Your task to perform on an android device: install app "Venmo" Image 0: 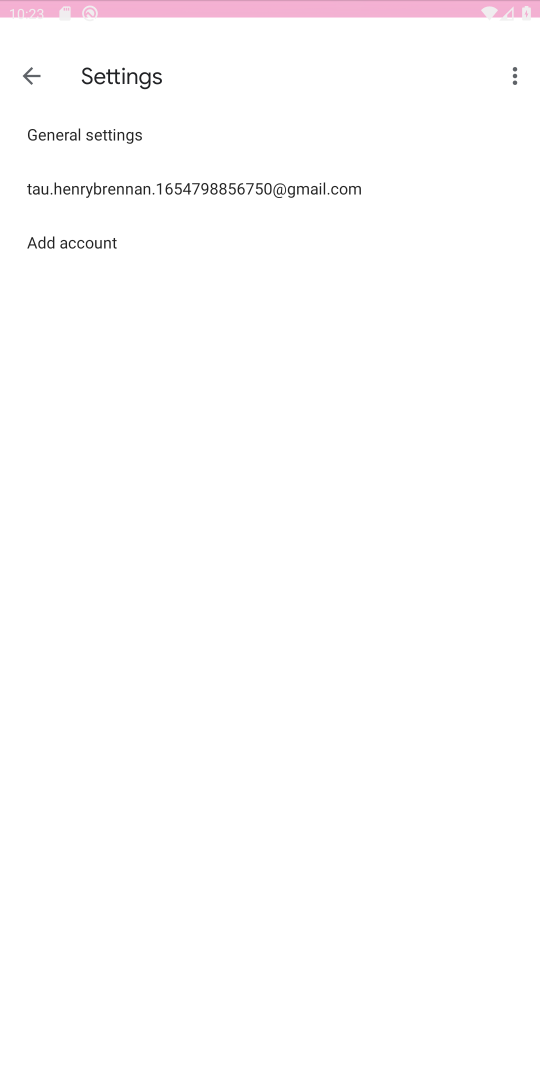
Step 0: click (335, 4)
Your task to perform on an android device: install app "Venmo" Image 1: 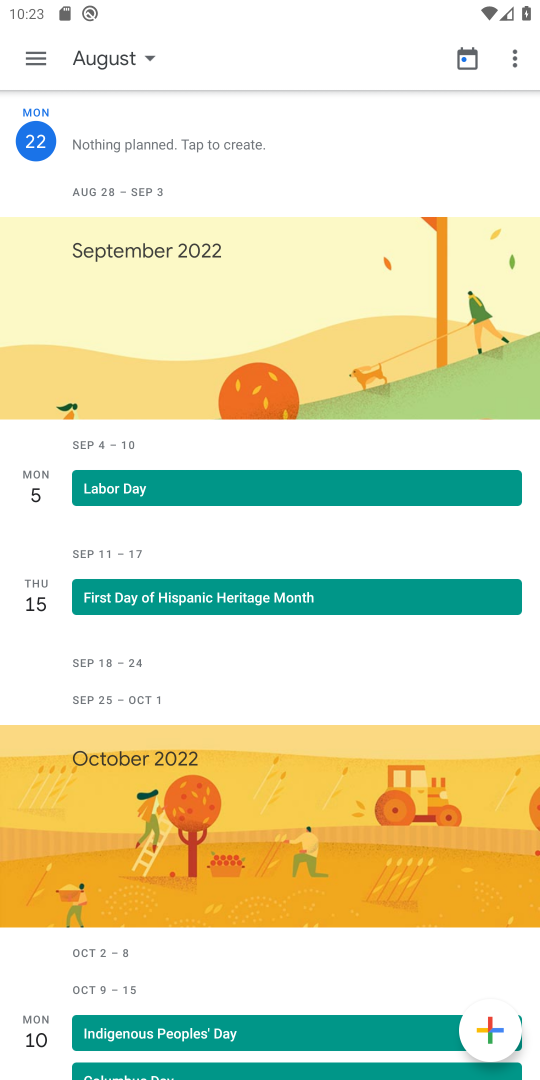
Step 1: press home button
Your task to perform on an android device: install app "Venmo" Image 2: 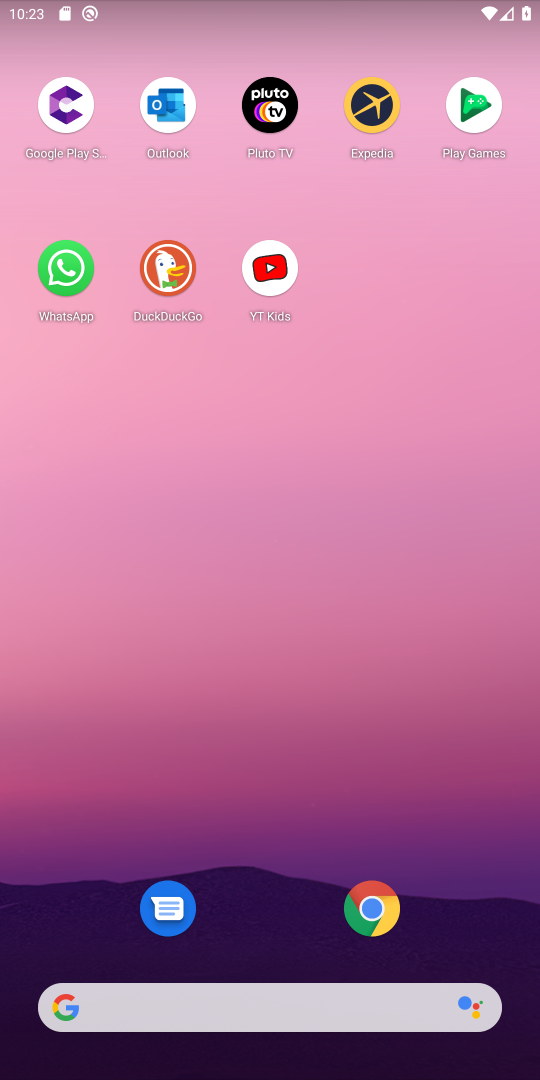
Step 2: drag from (295, 941) to (311, 213)
Your task to perform on an android device: install app "Venmo" Image 3: 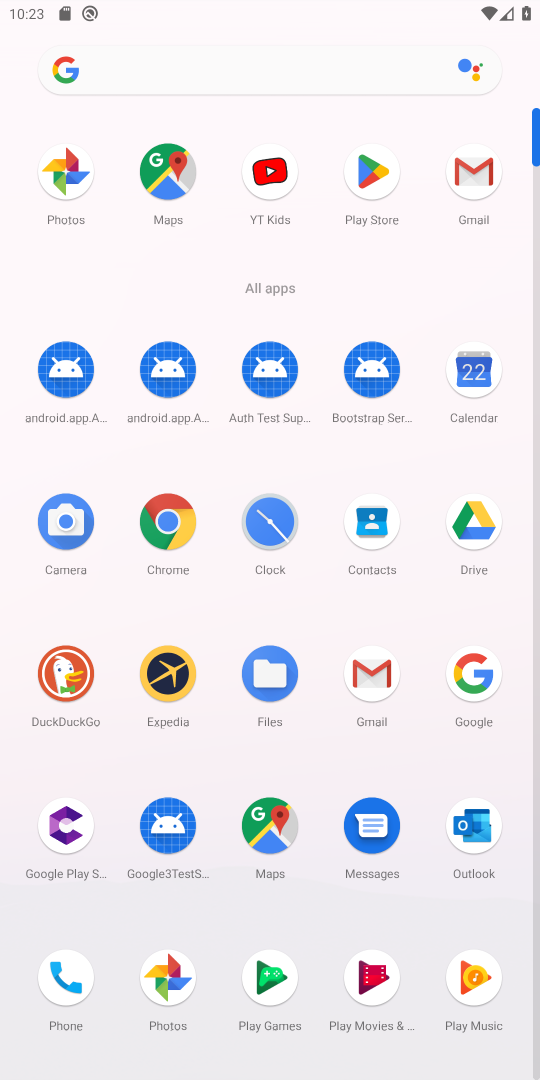
Step 3: click (346, 199)
Your task to perform on an android device: install app "Venmo" Image 4: 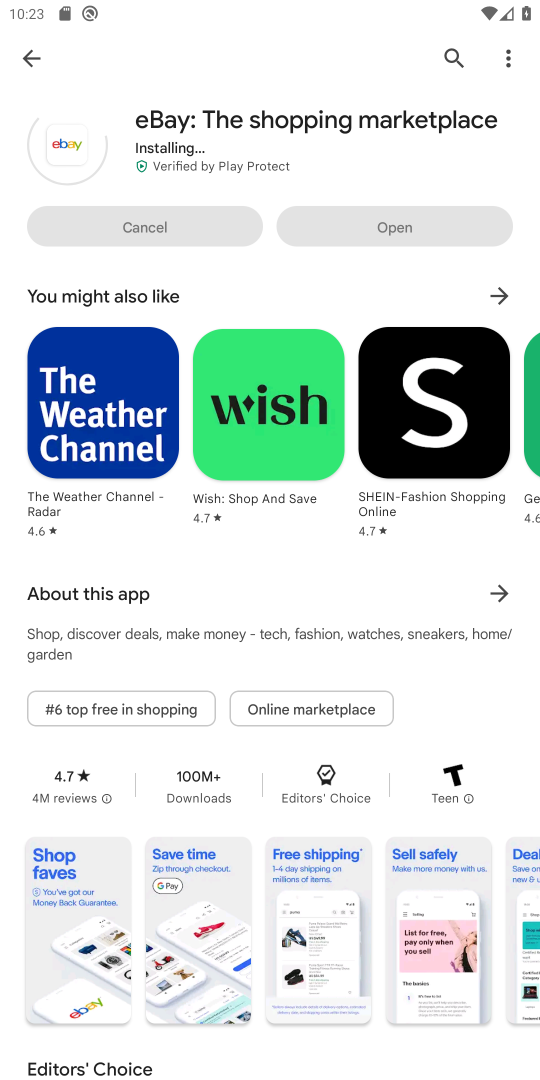
Step 4: click (441, 72)
Your task to perform on an android device: install app "Venmo" Image 5: 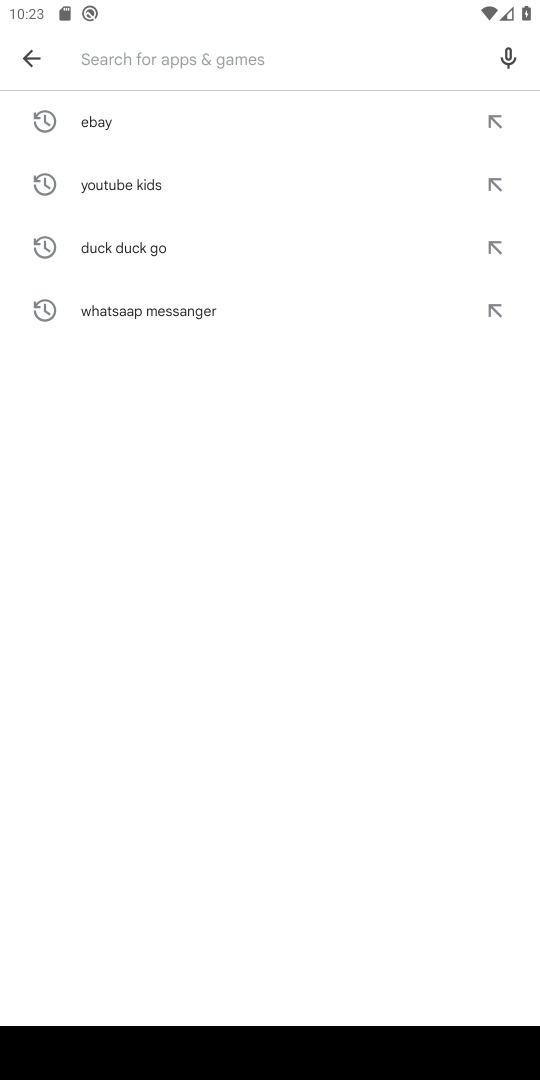
Step 5: type "venmo"
Your task to perform on an android device: install app "Venmo" Image 6: 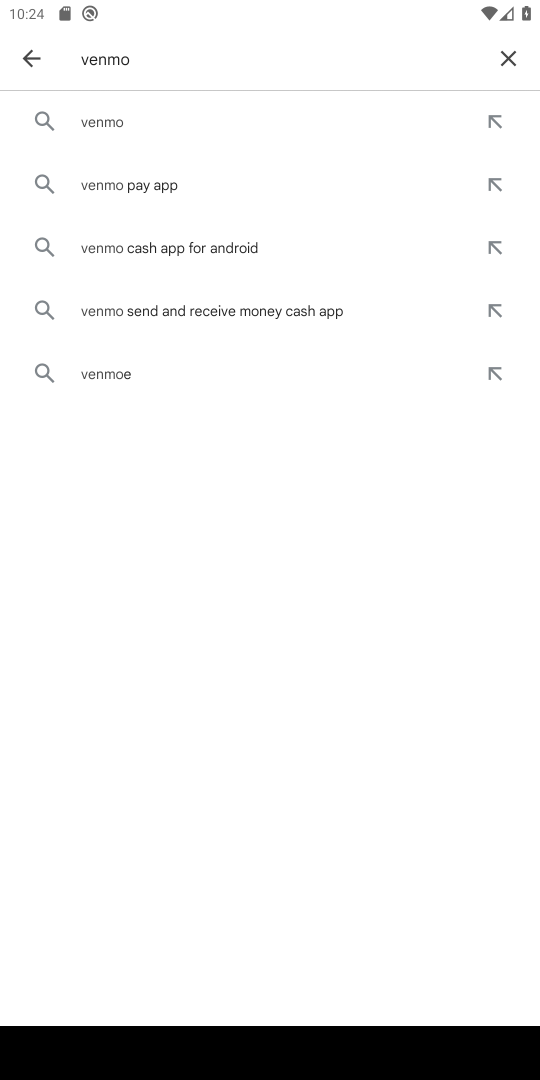
Step 6: click (177, 106)
Your task to perform on an android device: install app "Venmo" Image 7: 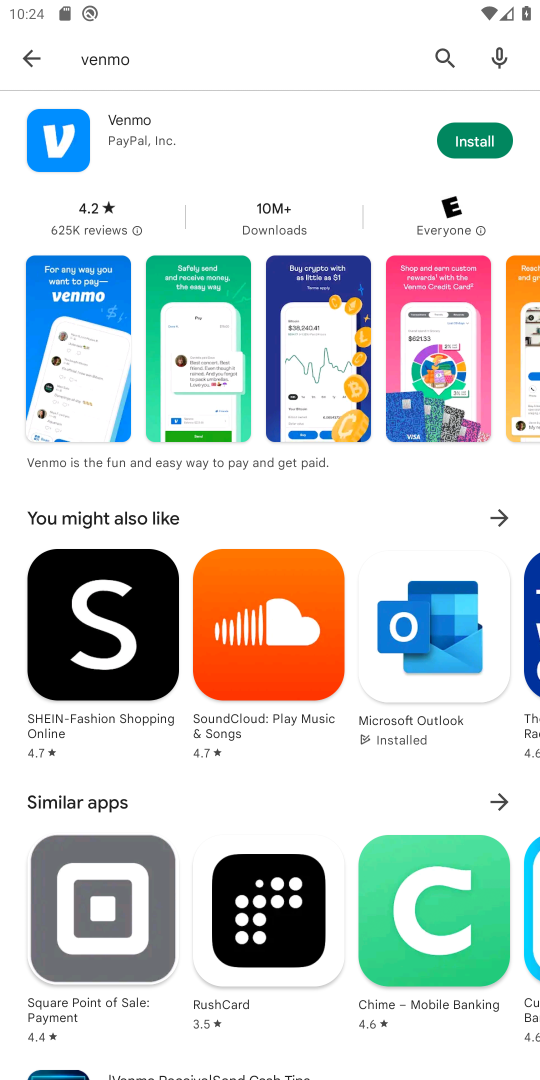
Step 7: click (508, 141)
Your task to perform on an android device: install app "Venmo" Image 8: 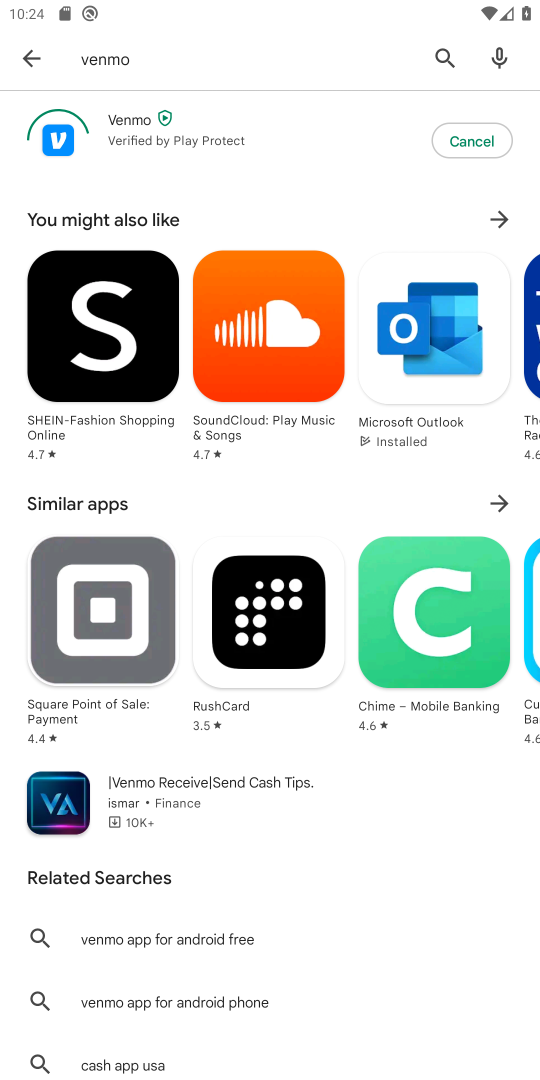
Step 8: task complete